Your task to perform on an android device: turn on data saver in the chrome app Image 0: 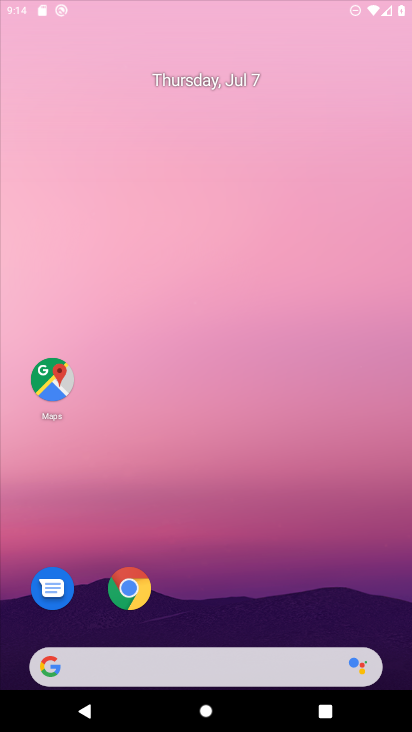
Step 0: click (293, 14)
Your task to perform on an android device: turn on data saver in the chrome app Image 1: 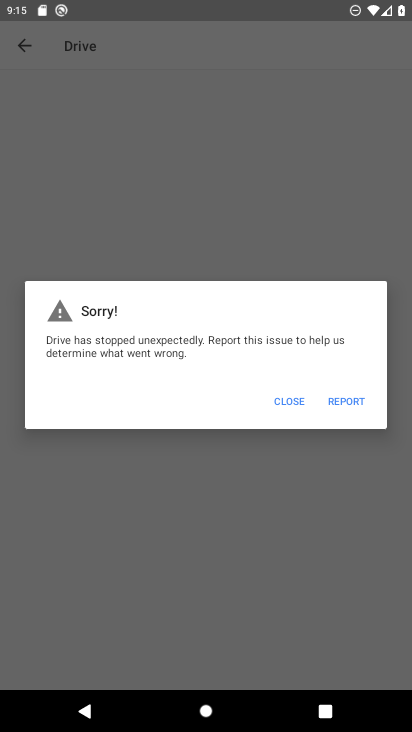
Step 1: press home button
Your task to perform on an android device: turn on data saver in the chrome app Image 2: 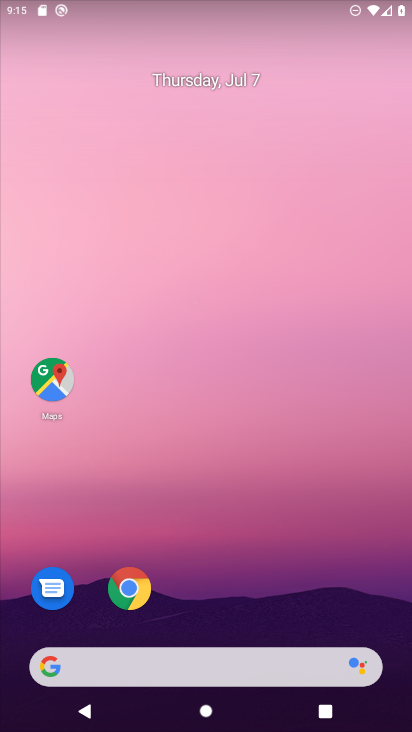
Step 2: click (132, 581)
Your task to perform on an android device: turn on data saver in the chrome app Image 3: 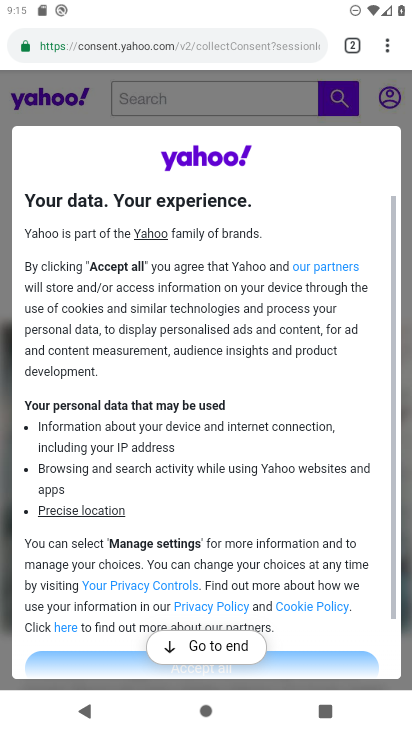
Step 3: click (397, 44)
Your task to perform on an android device: turn on data saver in the chrome app Image 4: 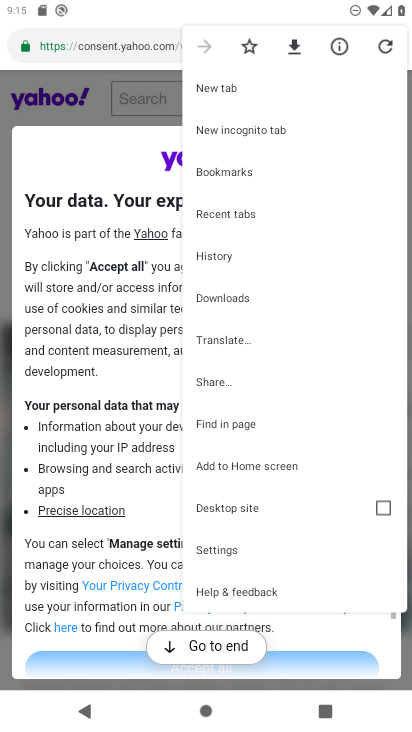
Step 4: click (223, 541)
Your task to perform on an android device: turn on data saver in the chrome app Image 5: 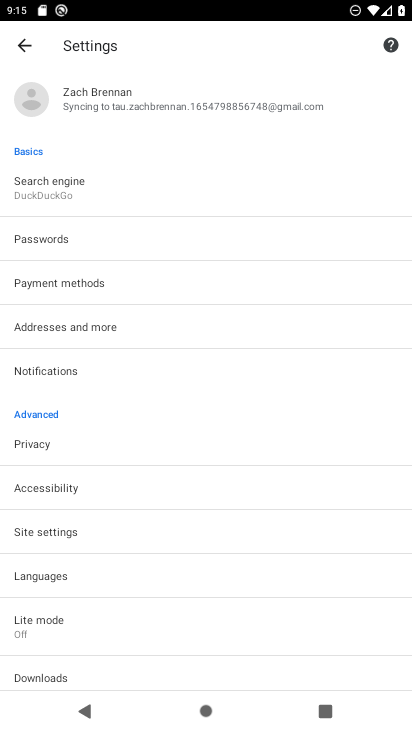
Step 5: click (15, 643)
Your task to perform on an android device: turn on data saver in the chrome app Image 6: 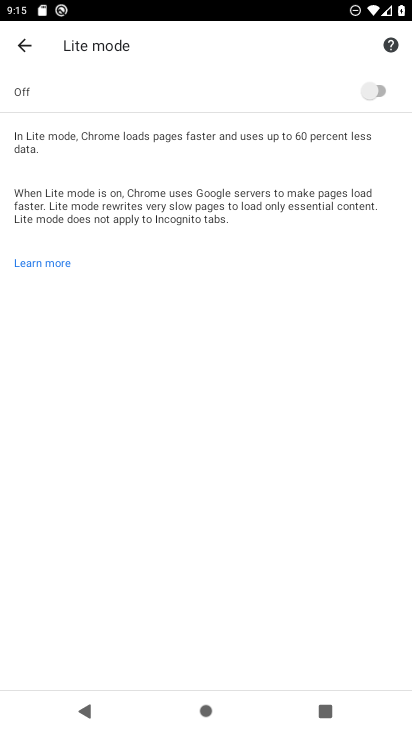
Step 6: click (386, 84)
Your task to perform on an android device: turn on data saver in the chrome app Image 7: 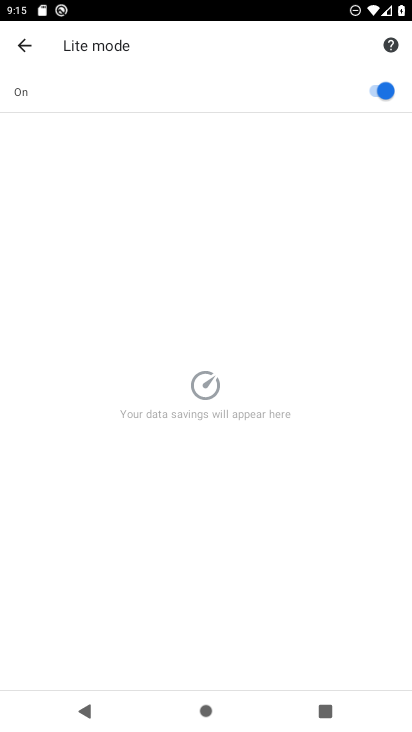
Step 7: task complete